Your task to perform on an android device: Is it going to rain this weekend? Image 0: 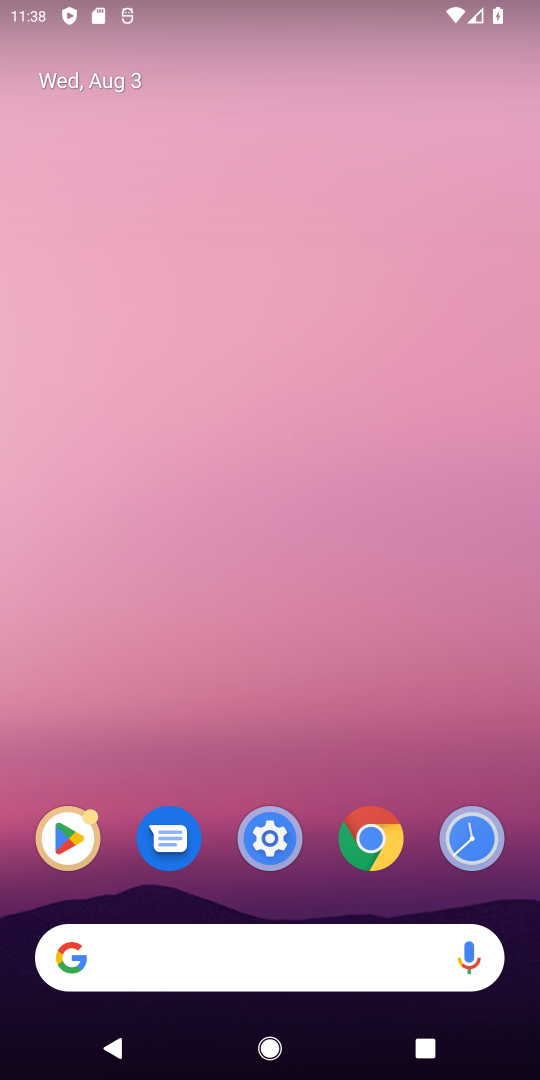
Step 0: click (350, 947)
Your task to perform on an android device: Is it going to rain this weekend? Image 1: 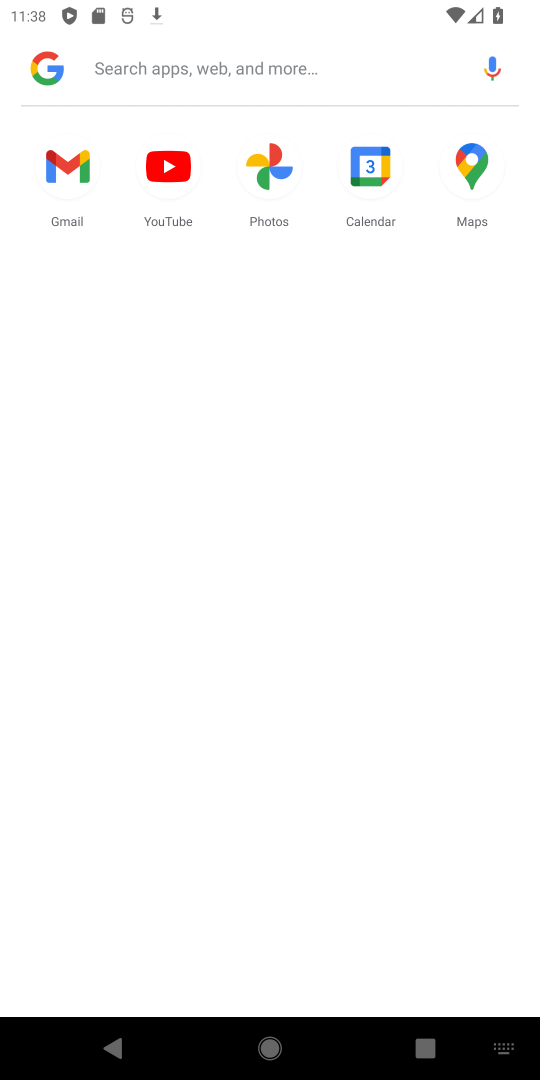
Step 1: click (311, 76)
Your task to perform on an android device: Is it going to rain this weekend? Image 2: 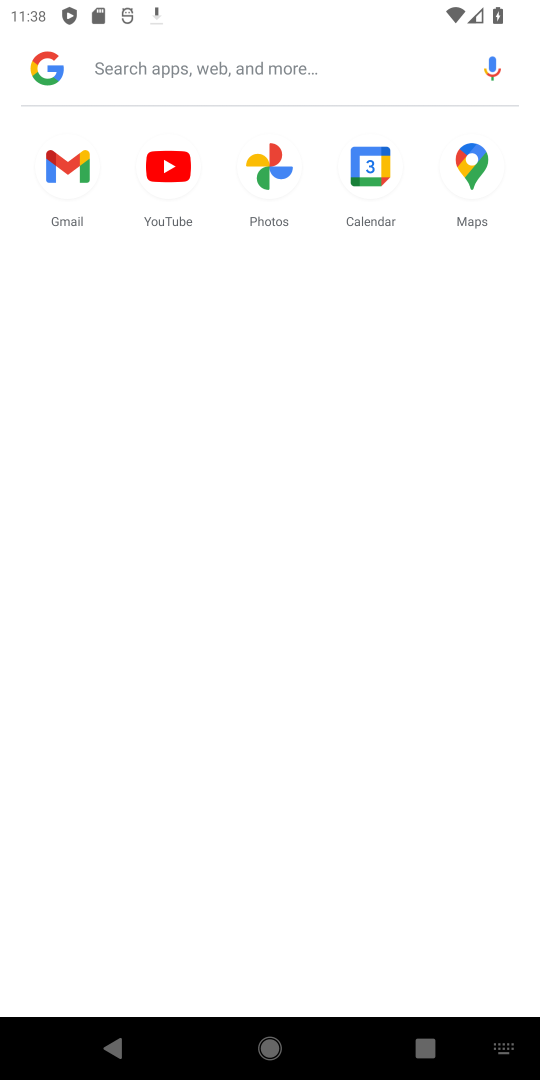
Step 2: type "weather"
Your task to perform on an android device: Is it going to rain this weekend? Image 3: 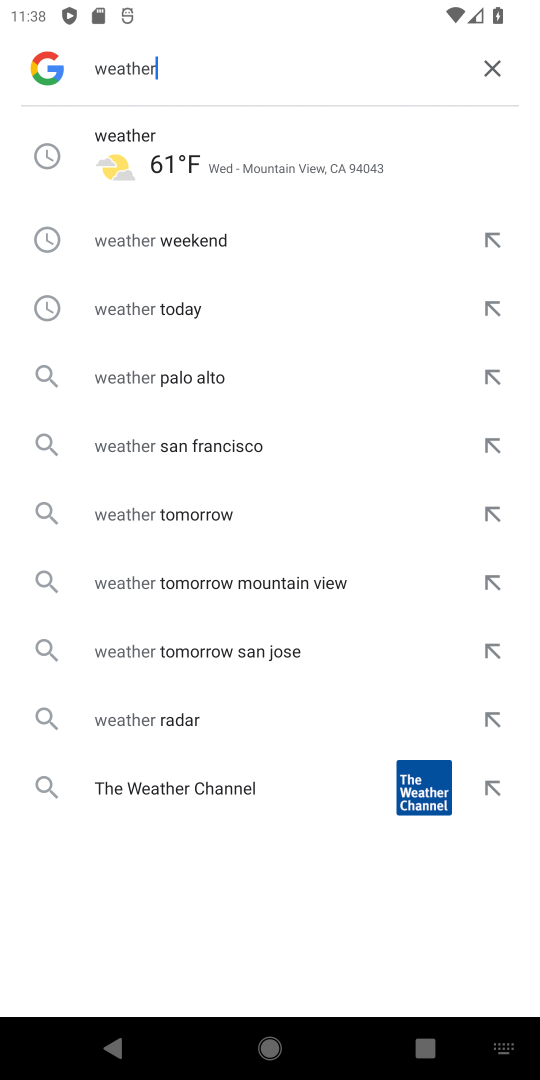
Step 3: click (180, 144)
Your task to perform on an android device: Is it going to rain this weekend? Image 4: 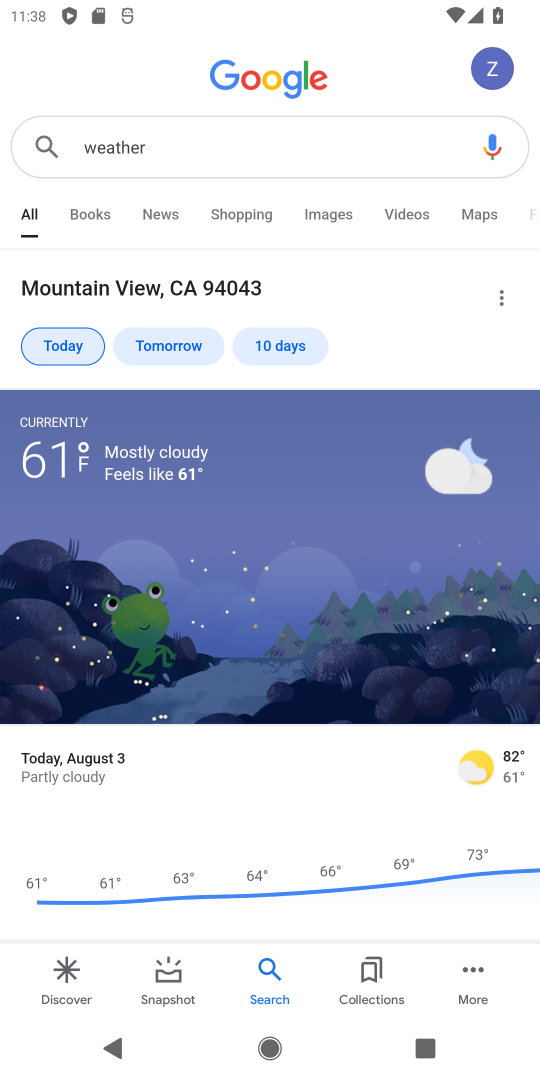
Step 4: click (279, 334)
Your task to perform on an android device: Is it going to rain this weekend? Image 5: 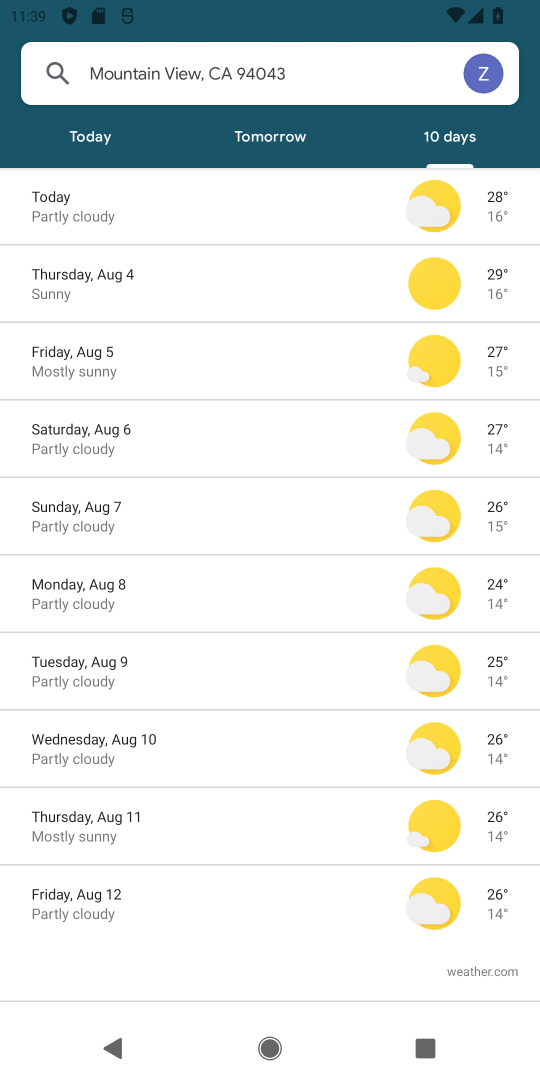
Step 5: click (219, 447)
Your task to perform on an android device: Is it going to rain this weekend? Image 6: 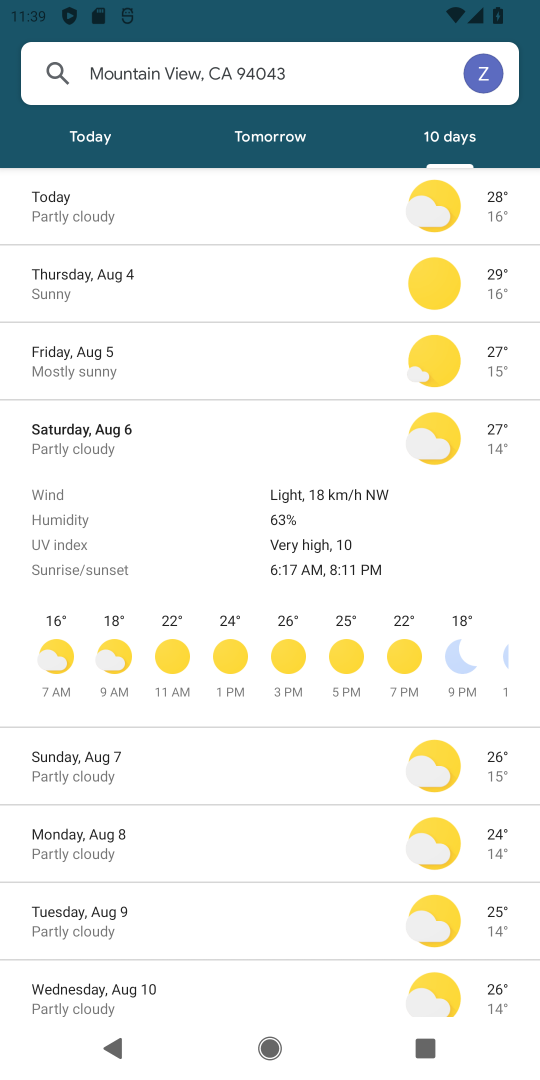
Step 6: task complete